Your task to perform on an android device: What is the news today? Image 0: 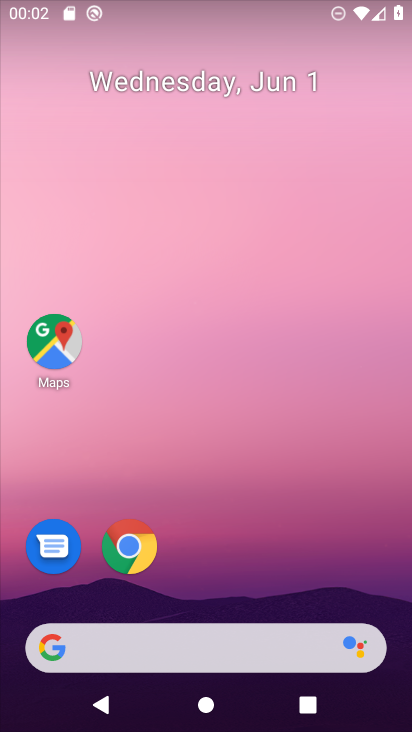
Step 0: drag from (4, 203) to (366, 185)
Your task to perform on an android device: What is the news today? Image 1: 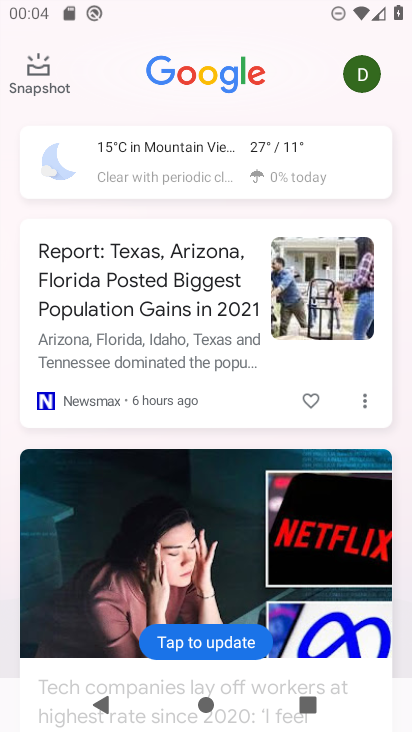
Step 1: task complete